Your task to perform on an android device: Open the web browser Image 0: 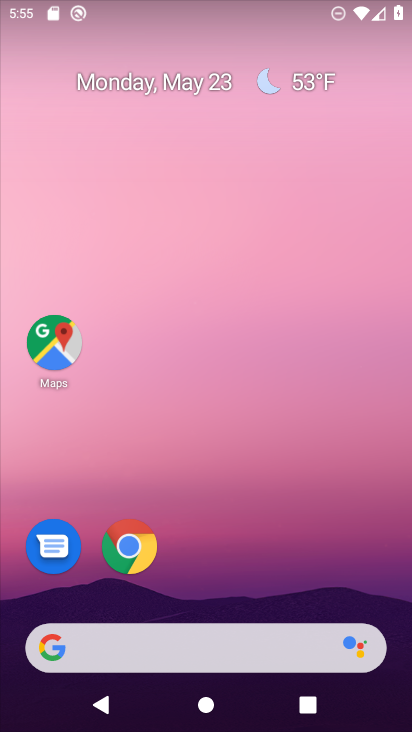
Step 0: click (127, 539)
Your task to perform on an android device: Open the web browser Image 1: 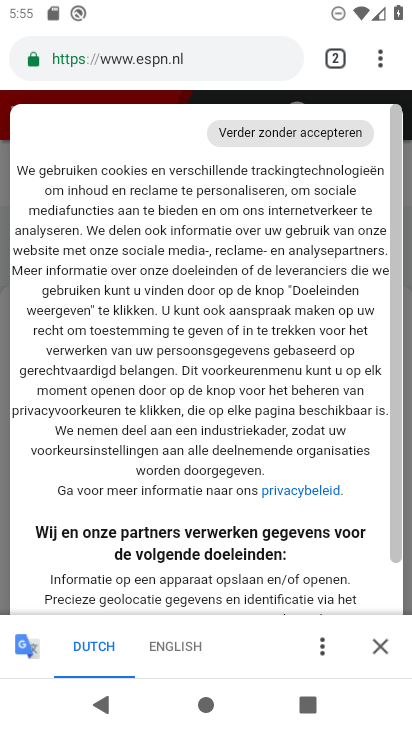
Step 1: task complete